Your task to perform on an android device: add a label to a message in the gmail app Image 0: 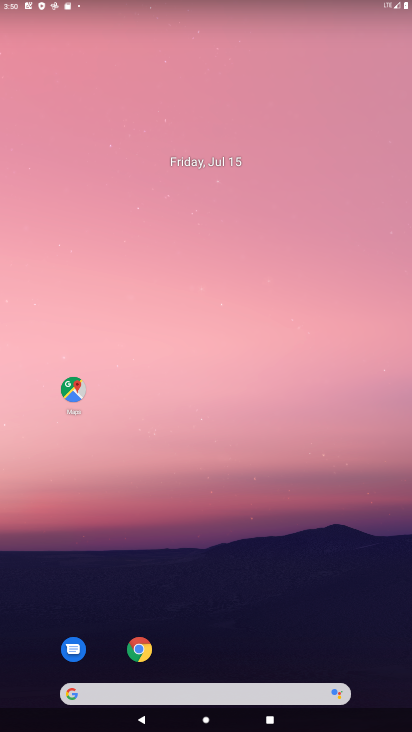
Step 0: drag from (279, 631) to (284, 81)
Your task to perform on an android device: add a label to a message in the gmail app Image 1: 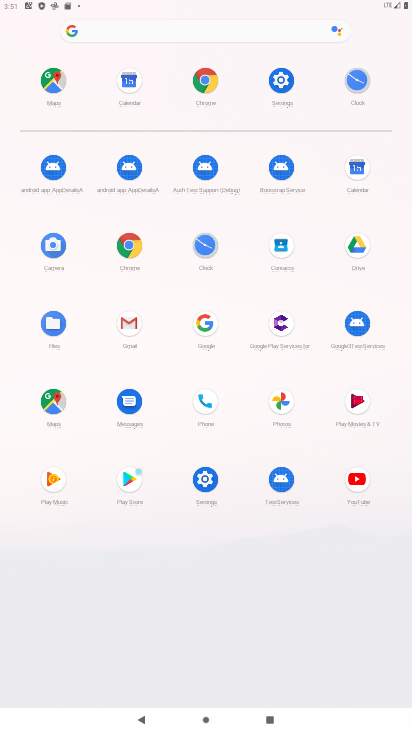
Step 1: click (137, 318)
Your task to perform on an android device: add a label to a message in the gmail app Image 2: 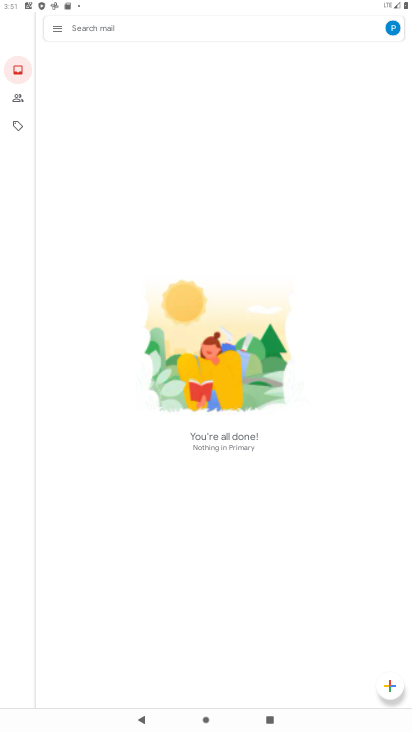
Step 2: click (51, 23)
Your task to perform on an android device: add a label to a message in the gmail app Image 3: 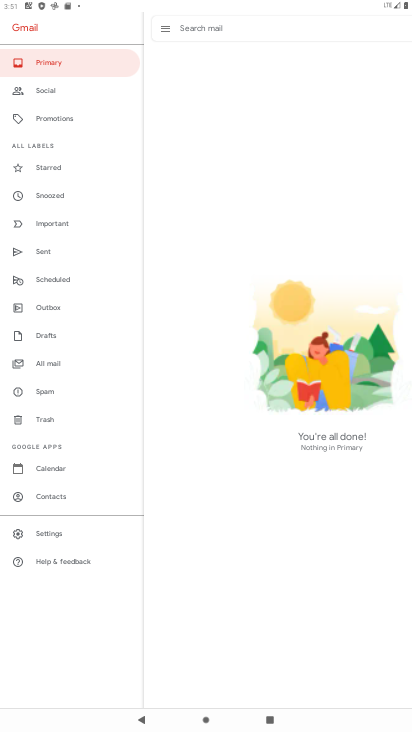
Step 3: click (57, 368)
Your task to perform on an android device: add a label to a message in the gmail app Image 4: 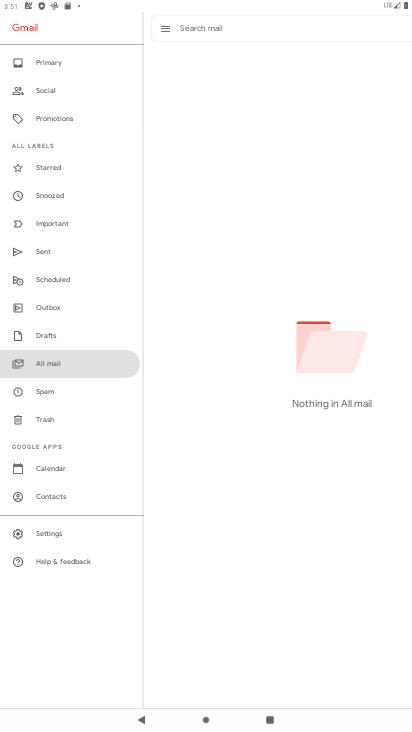
Step 4: task complete